Your task to perform on an android device: turn off location Image 0: 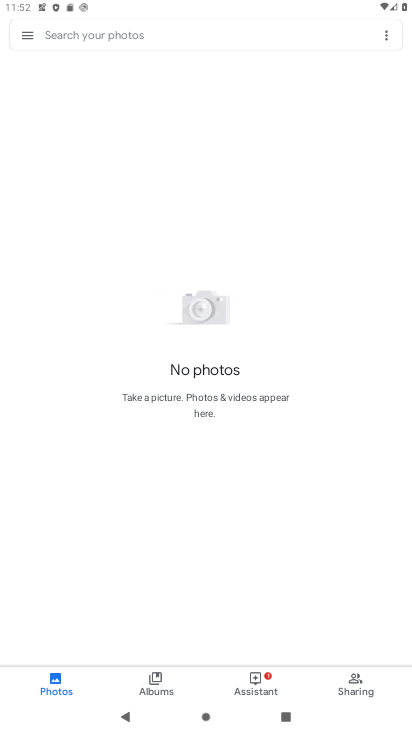
Step 0: press home button
Your task to perform on an android device: turn off location Image 1: 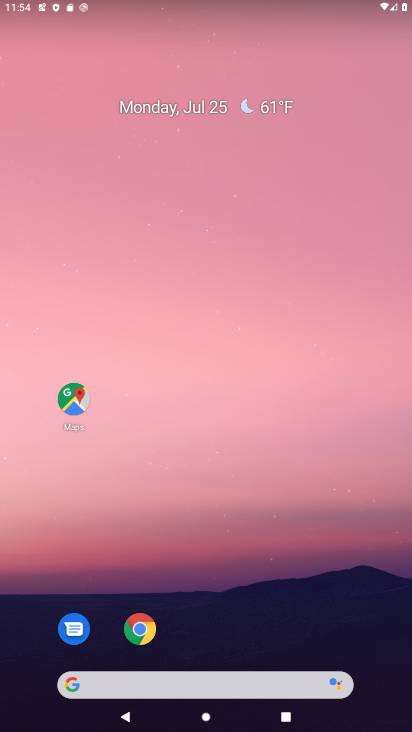
Step 1: drag from (190, 637) to (212, 236)
Your task to perform on an android device: turn off location Image 2: 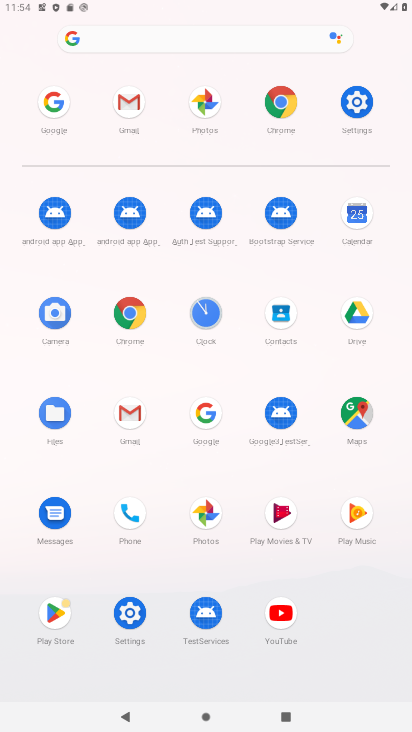
Step 2: click (351, 115)
Your task to perform on an android device: turn off location Image 3: 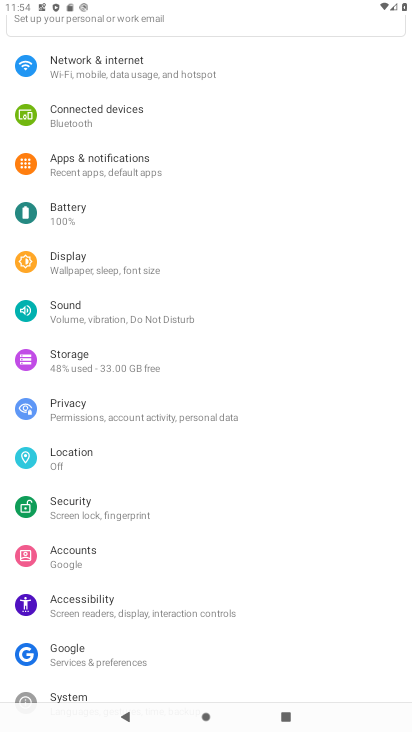
Step 3: click (95, 463)
Your task to perform on an android device: turn off location Image 4: 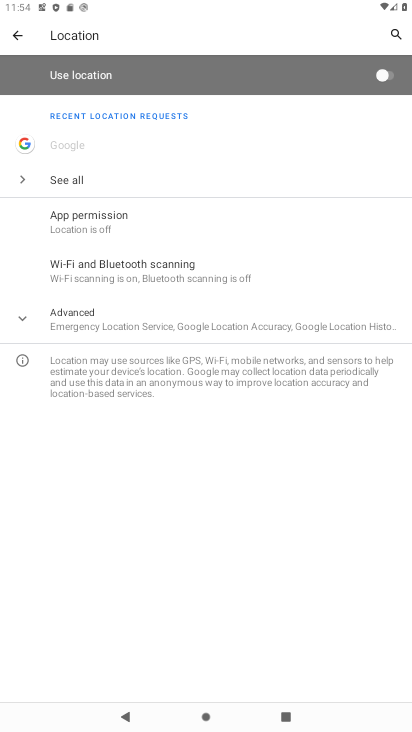
Step 4: task complete